Your task to perform on an android device: Open network settings Image 0: 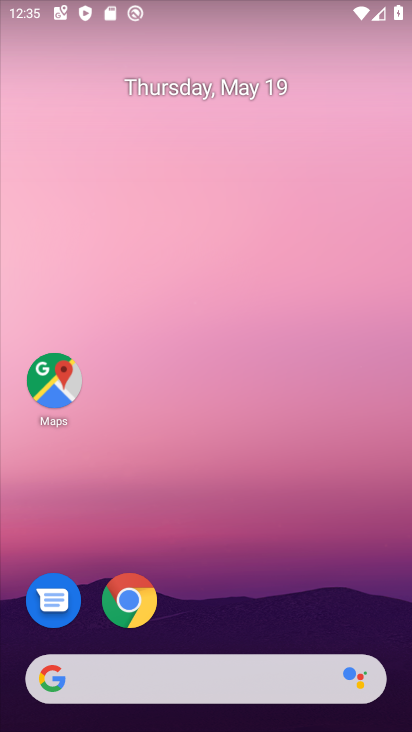
Step 0: drag from (256, 594) to (170, 24)
Your task to perform on an android device: Open network settings Image 1: 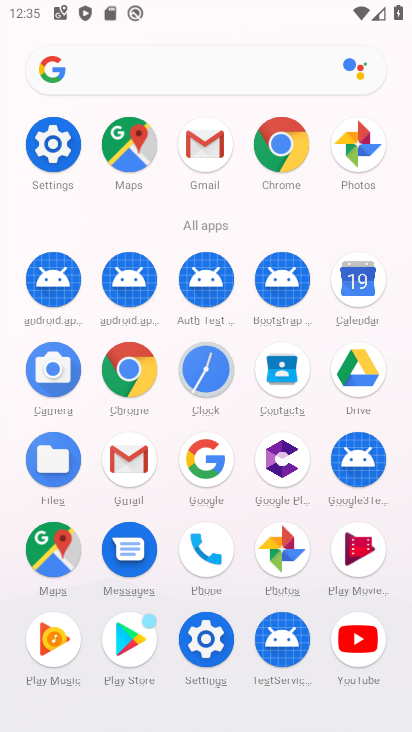
Step 1: click (60, 150)
Your task to perform on an android device: Open network settings Image 2: 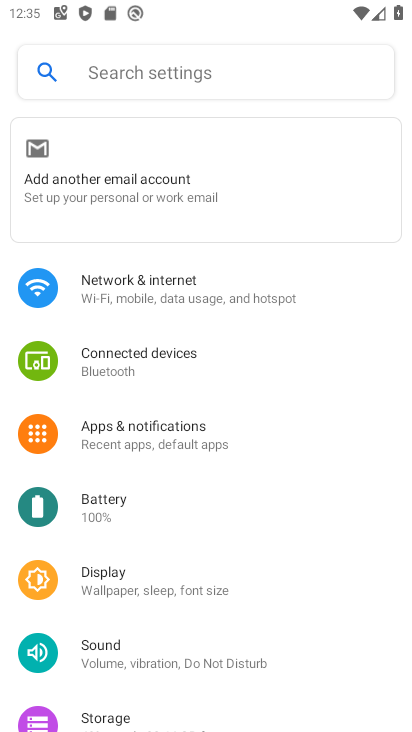
Step 2: click (165, 304)
Your task to perform on an android device: Open network settings Image 3: 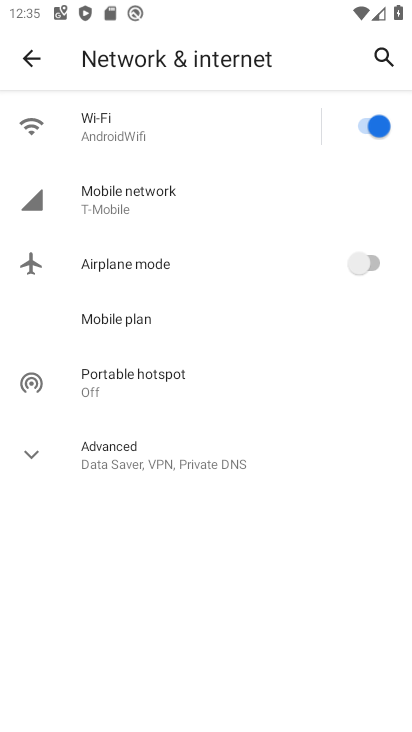
Step 3: task complete